Your task to perform on an android device: change the clock display to analog Image 0: 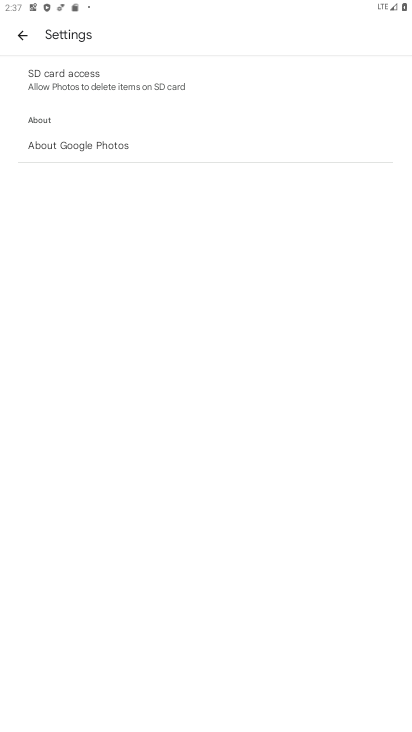
Step 0: press home button
Your task to perform on an android device: change the clock display to analog Image 1: 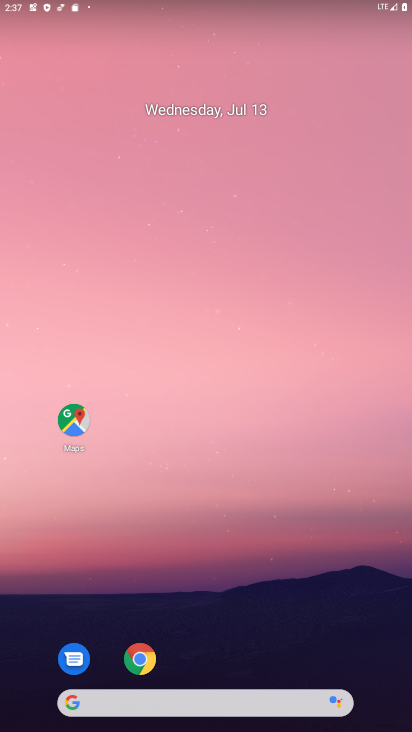
Step 1: drag from (377, 657) to (342, 118)
Your task to perform on an android device: change the clock display to analog Image 2: 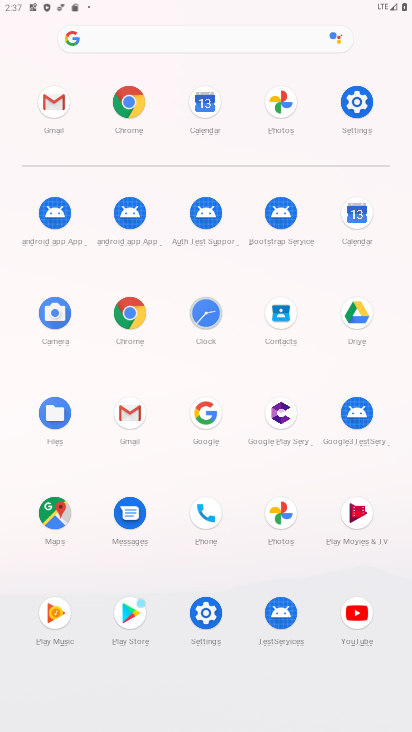
Step 2: click (203, 313)
Your task to perform on an android device: change the clock display to analog Image 3: 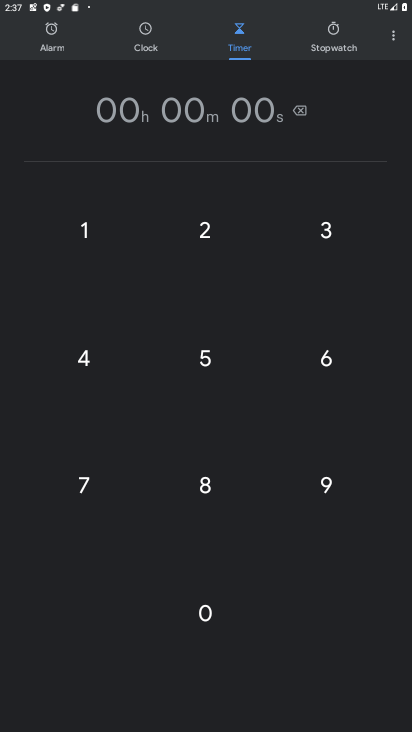
Step 3: click (396, 44)
Your task to perform on an android device: change the clock display to analog Image 4: 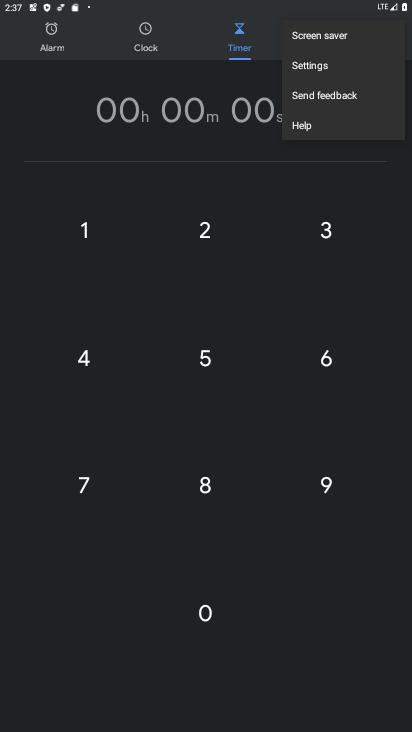
Step 4: click (313, 67)
Your task to perform on an android device: change the clock display to analog Image 5: 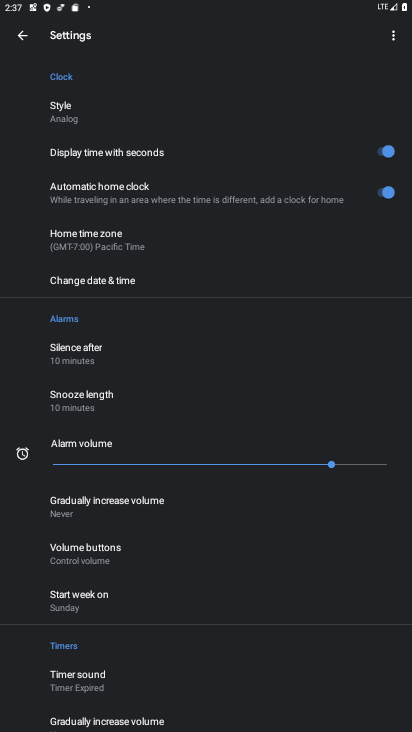
Step 5: task complete